Your task to perform on an android device: Open the calendar and show me this week's events? Image 0: 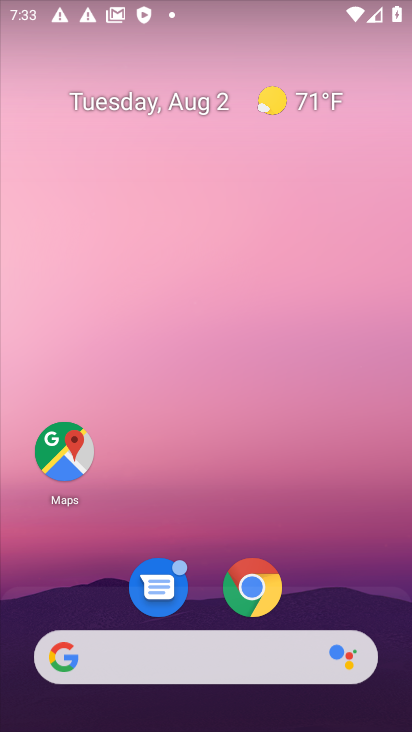
Step 0: drag from (326, 593) to (248, 60)
Your task to perform on an android device: Open the calendar and show me this week's events? Image 1: 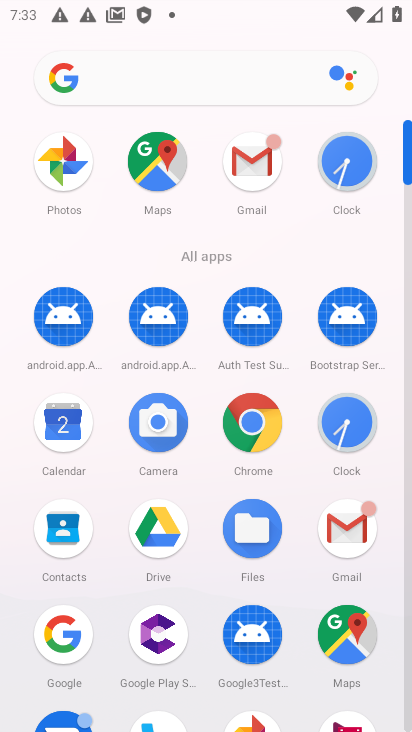
Step 1: click (63, 426)
Your task to perform on an android device: Open the calendar and show me this week's events? Image 2: 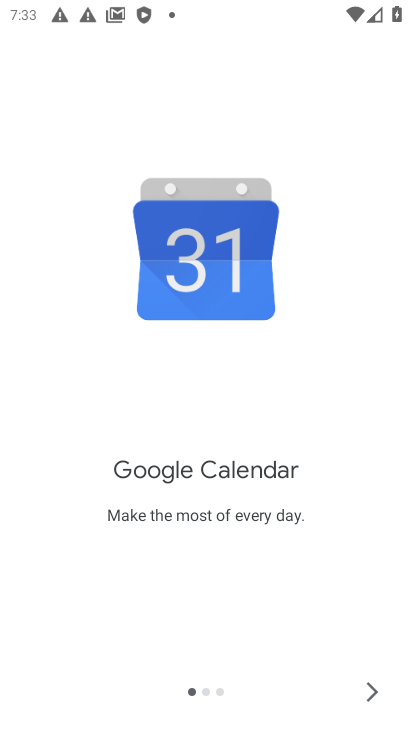
Step 2: click (377, 697)
Your task to perform on an android device: Open the calendar and show me this week's events? Image 3: 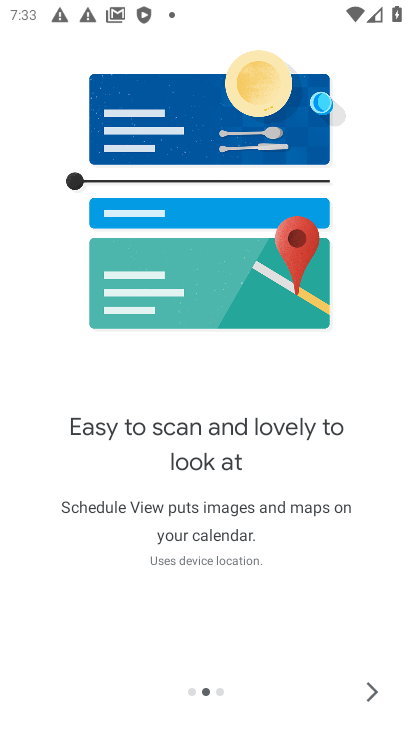
Step 3: click (377, 697)
Your task to perform on an android device: Open the calendar and show me this week's events? Image 4: 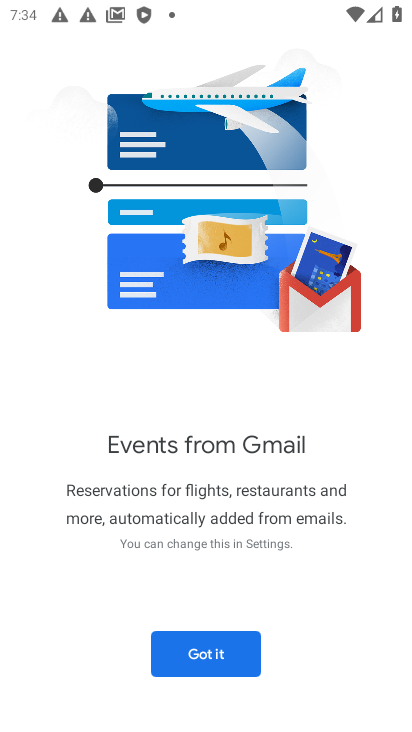
Step 4: click (211, 648)
Your task to perform on an android device: Open the calendar and show me this week's events? Image 5: 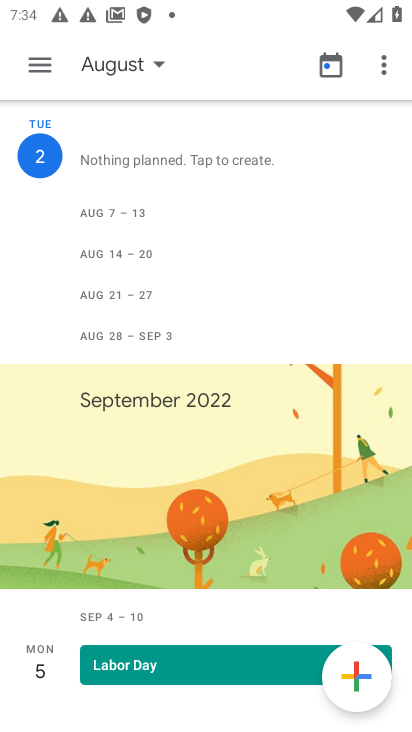
Step 5: click (154, 67)
Your task to perform on an android device: Open the calendar and show me this week's events? Image 6: 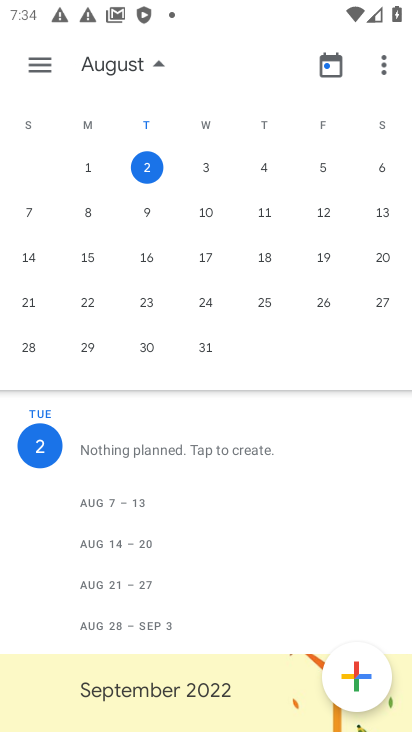
Step 6: click (43, 59)
Your task to perform on an android device: Open the calendar and show me this week's events? Image 7: 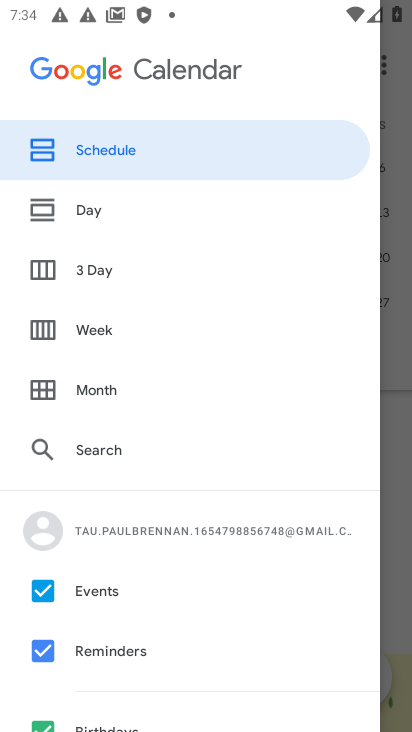
Step 7: click (90, 328)
Your task to perform on an android device: Open the calendar and show me this week's events? Image 8: 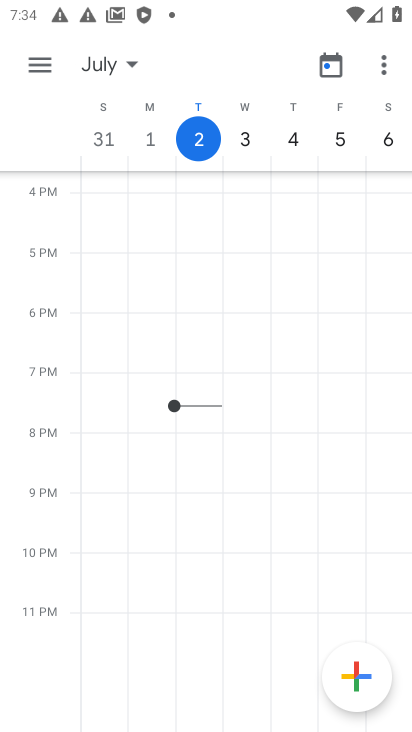
Step 8: drag from (246, 545) to (246, 306)
Your task to perform on an android device: Open the calendar and show me this week's events? Image 9: 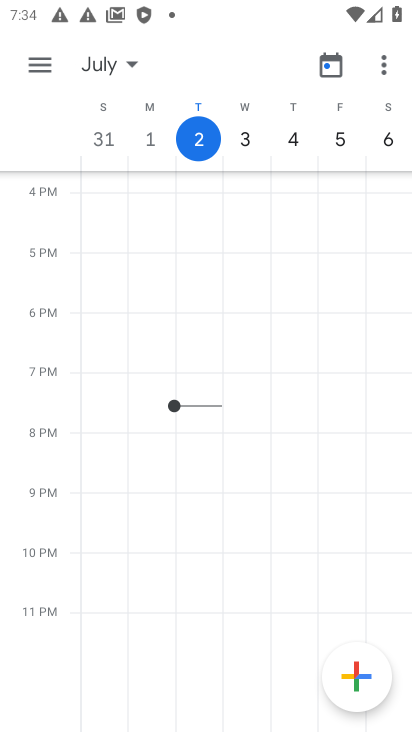
Step 9: click (136, 64)
Your task to perform on an android device: Open the calendar and show me this week's events? Image 10: 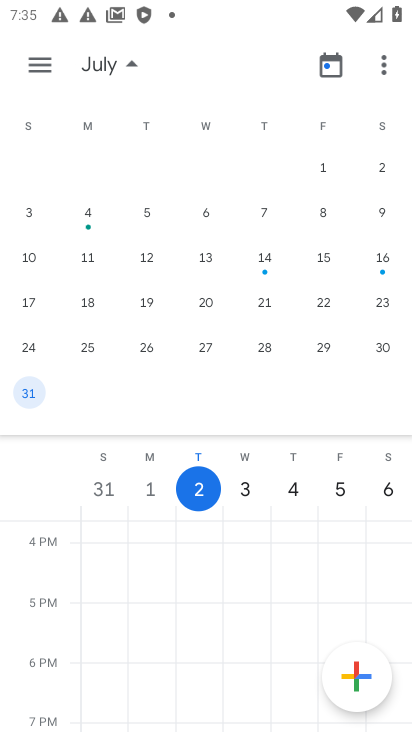
Step 10: drag from (375, 284) to (1, 258)
Your task to perform on an android device: Open the calendar and show me this week's events? Image 11: 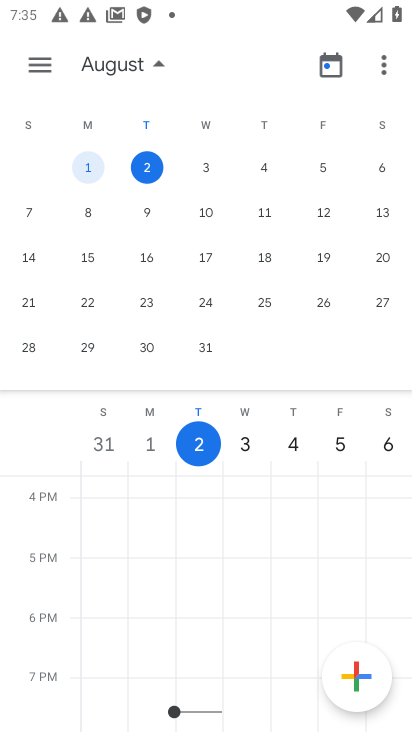
Step 11: click (140, 162)
Your task to perform on an android device: Open the calendar and show me this week's events? Image 12: 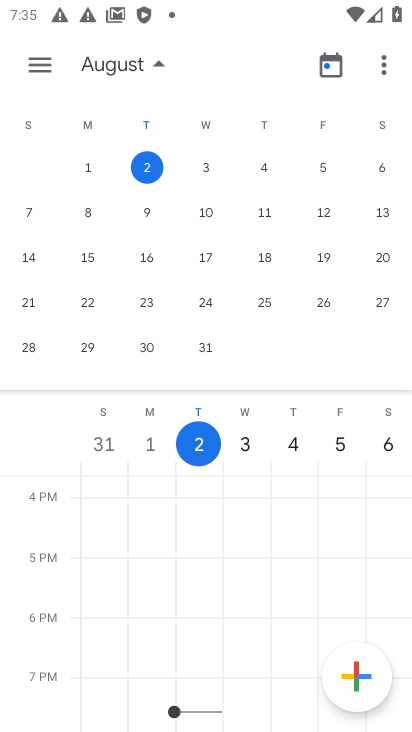
Step 12: task complete